Your task to perform on an android device: Open privacy settings Image 0: 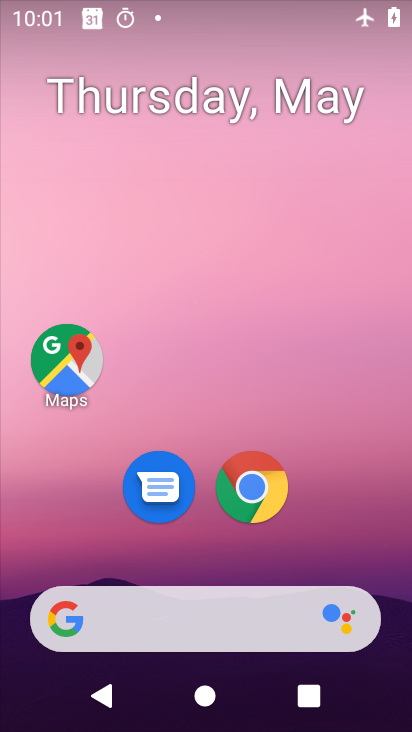
Step 0: drag from (189, 614) to (209, 202)
Your task to perform on an android device: Open privacy settings Image 1: 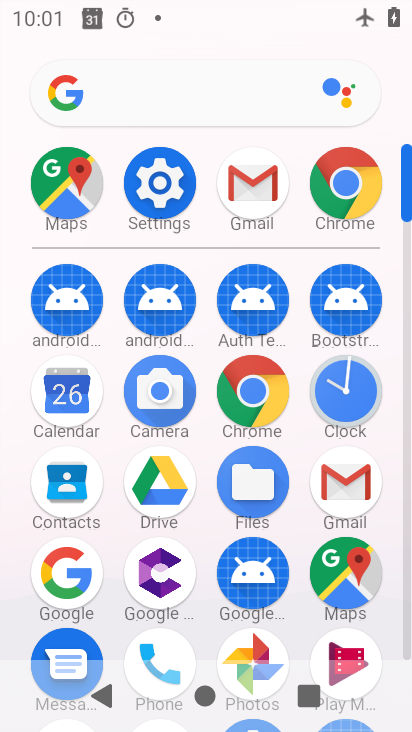
Step 1: click (167, 194)
Your task to perform on an android device: Open privacy settings Image 2: 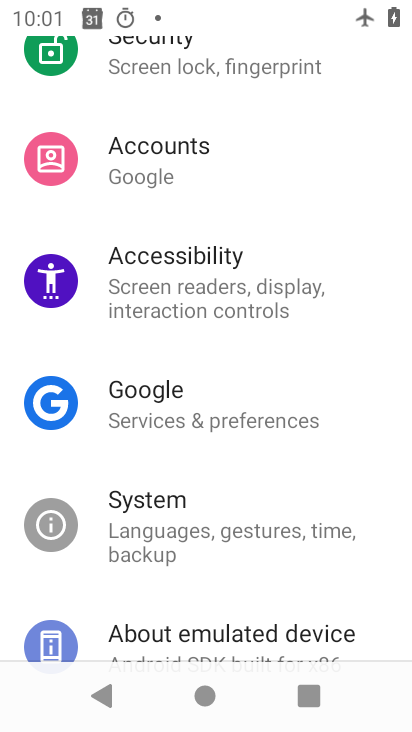
Step 2: drag from (198, 481) to (232, 185)
Your task to perform on an android device: Open privacy settings Image 3: 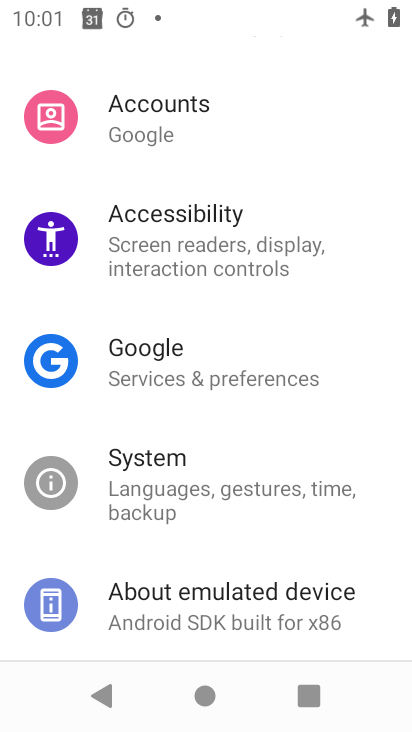
Step 3: drag from (238, 307) to (215, 586)
Your task to perform on an android device: Open privacy settings Image 4: 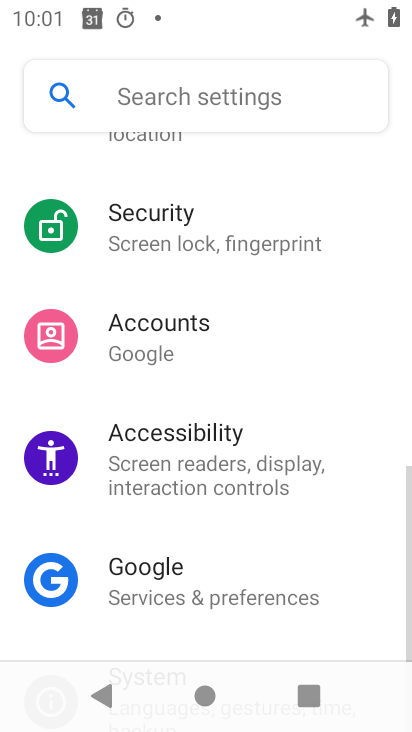
Step 4: drag from (220, 311) to (197, 555)
Your task to perform on an android device: Open privacy settings Image 5: 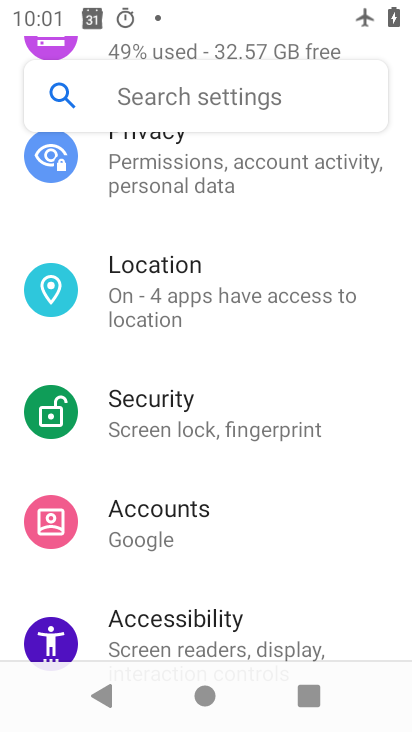
Step 5: drag from (197, 273) to (189, 519)
Your task to perform on an android device: Open privacy settings Image 6: 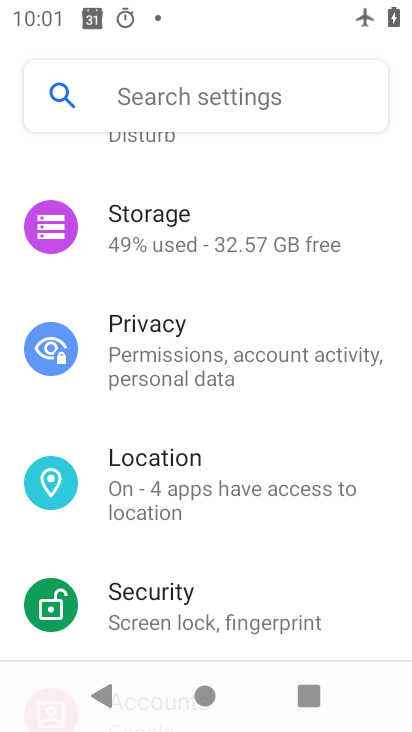
Step 6: click (182, 363)
Your task to perform on an android device: Open privacy settings Image 7: 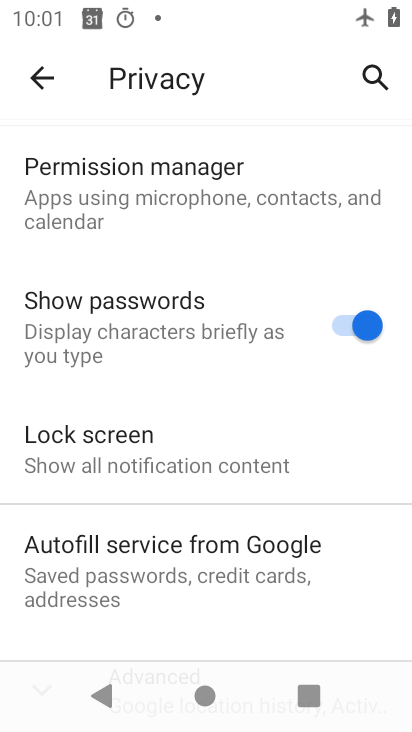
Step 7: task complete